Your task to perform on an android device: turn on showing notifications on the lock screen Image 0: 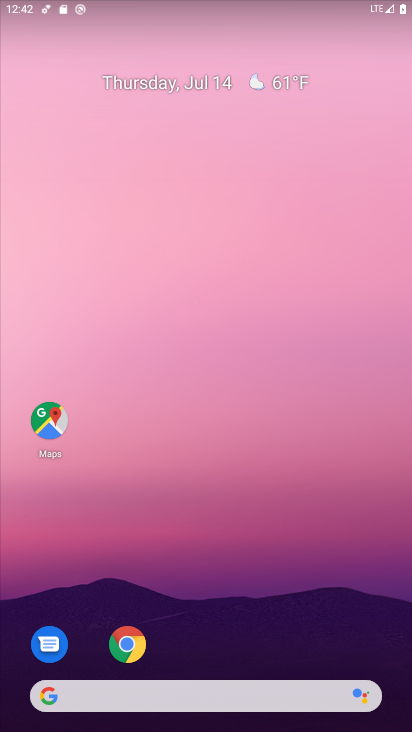
Step 0: drag from (218, 658) to (308, 116)
Your task to perform on an android device: turn on showing notifications on the lock screen Image 1: 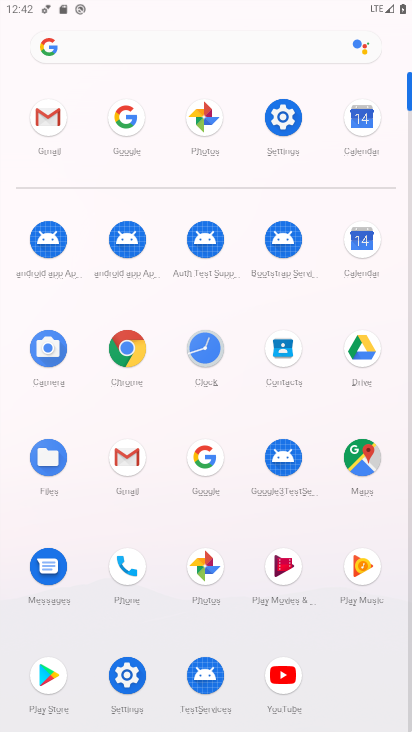
Step 1: click (277, 119)
Your task to perform on an android device: turn on showing notifications on the lock screen Image 2: 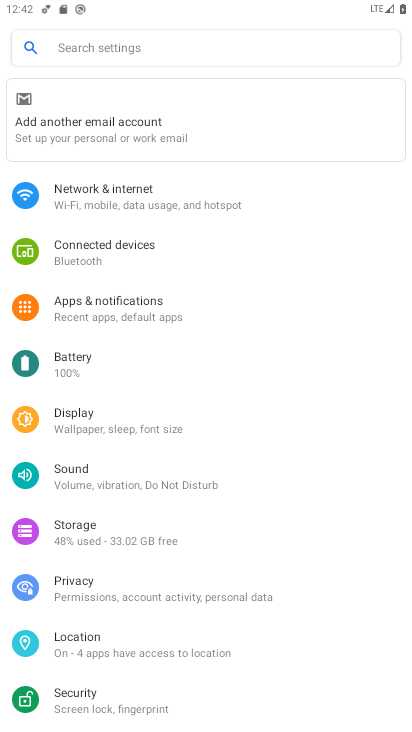
Step 2: click (94, 322)
Your task to perform on an android device: turn on showing notifications on the lock screen Image 3: 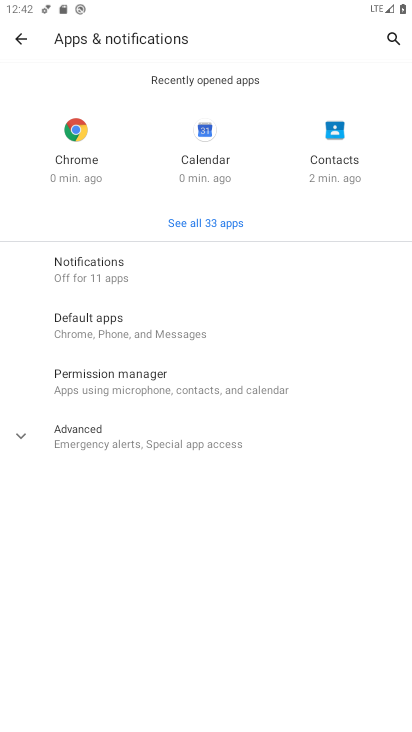
Step 3: click (116, 272)
Your task to perform on an android device: turn on showing notifications on the lock screen Image 4: 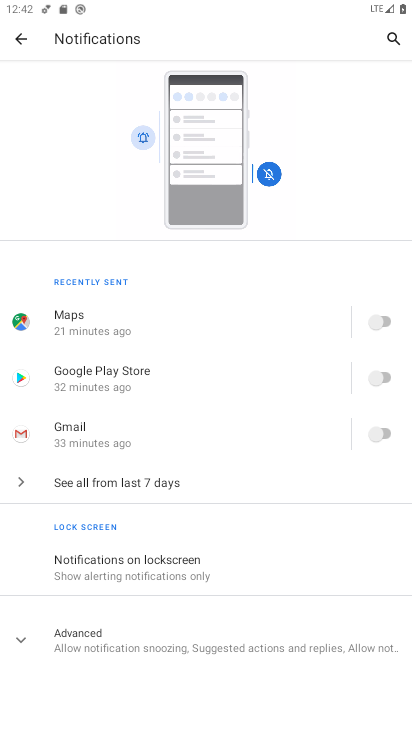
Step 4: click (129, 569)
Your task to perform on an android device: turn on showing notifications on the lock screen Image 5: 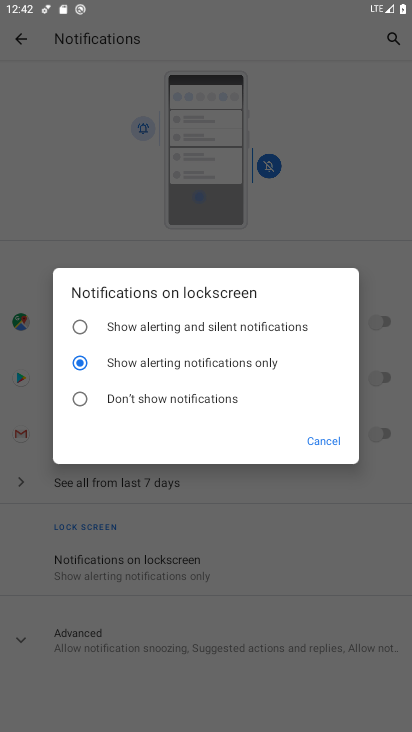
Step 5: click (181, 331)
Your task to perform on an android device: turn on showing notifications on the lock screen Image 6: 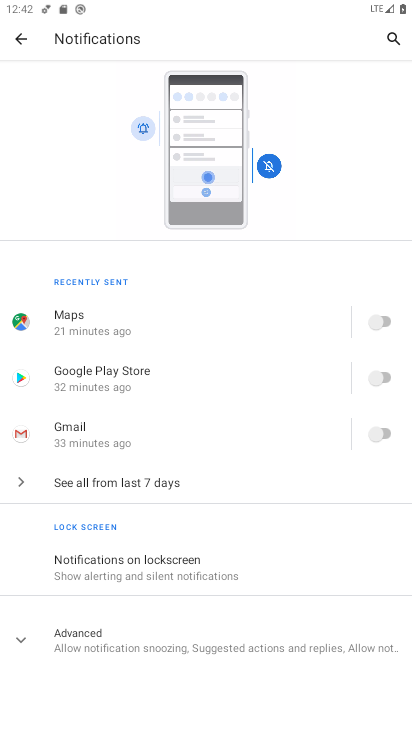
Step 6: task complete